Your task to perform on an android device: empty trash in google photos Image 0: 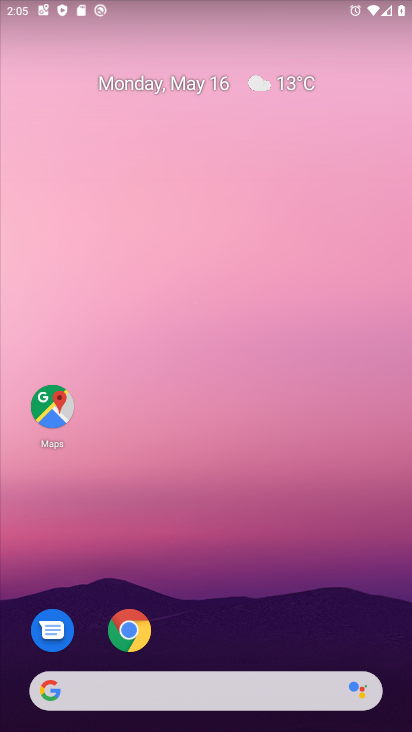
Step 0: drag from (257, 542) to (274, 149)
Your task to perform on an android device: empty trash in google photos Image 1: 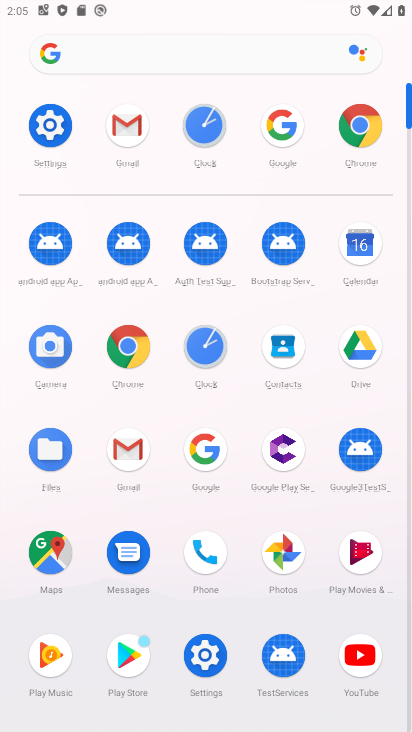
Step 1: click (289, 537)
Your task to perform on an android device: empty trash in google photos Image 2: 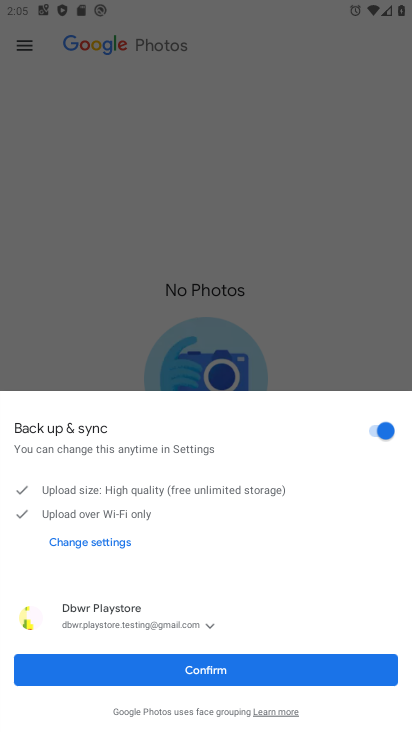
Step 2: click (219, 673)
Your task to perform on an android device: empty trash in google photos Image 3: 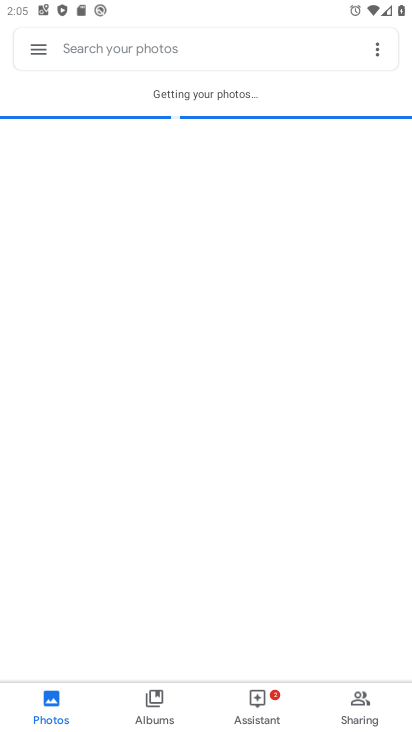
Step 3: click (370, 709)
Your task to perform on an android device: empty trash in google photos Image 4: 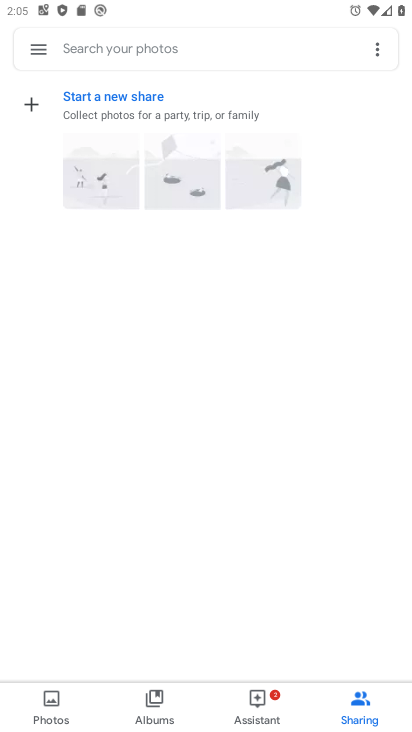
Step 4: click (24, 693)
Your task to perform on an android device: empty trash in google photos Image 5: 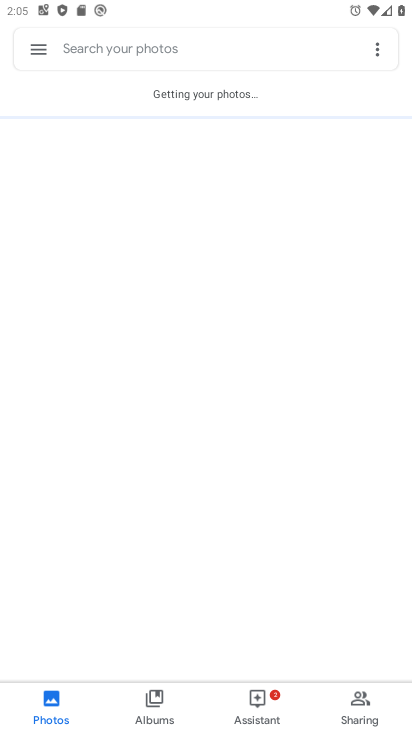
Step 5: click (382, 39)
Your task to perform on an android device: empty trash in google photos Image 6: 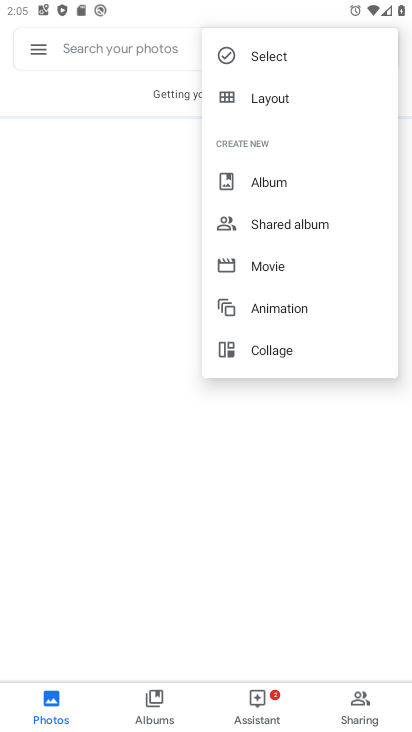
Step 6: click (279, 189)
Your task to perform on an android device: empty trash in google photos Image 7: 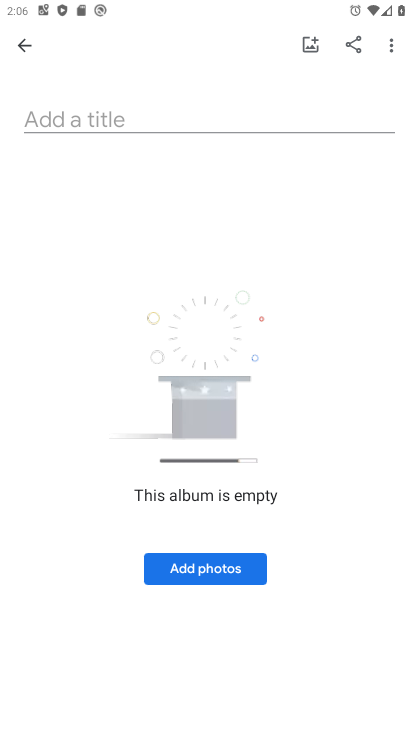
Step 7: click (392, 40)
Your task to perform on an android device: empty trash in google photos Image 8: 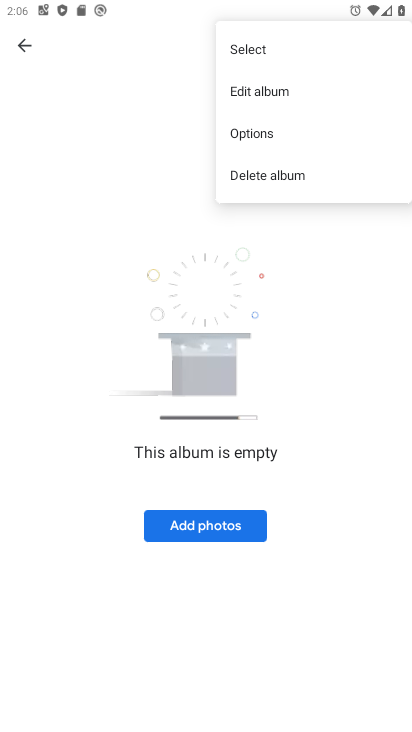
Step 8: press back button
Your task to perform on an android device: empty trash in google photos Image 9: 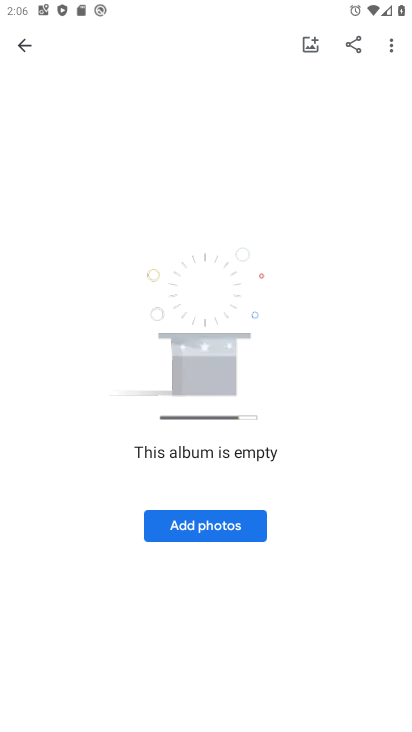
Step 9: press back button
Your task to perform on an android device: empty trash in google photos Image 10: 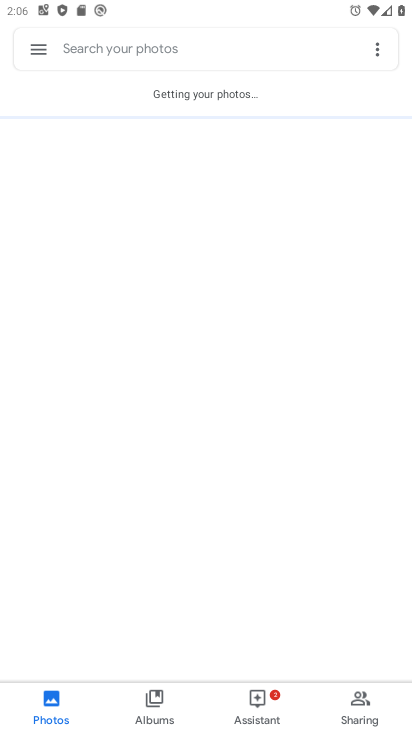
Step 10: click (368, 44)
Your task to perform on an android device: empty trash in google photos Image 11: 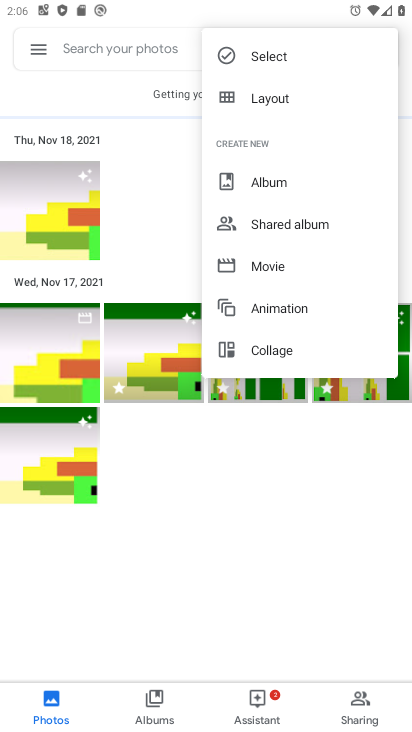
Step 11: click (74, 617)
Your task to perform on an android device: empty trash in google photos Image 12: 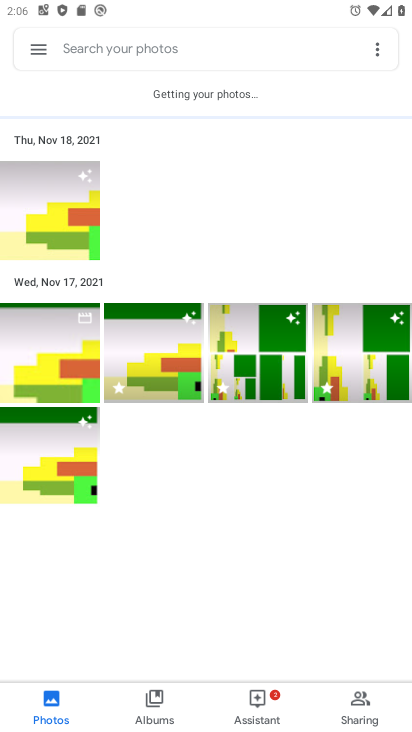
Step 12: click (74, 617)
Your task to perform on an android device: empty trash in google photos Image 13: 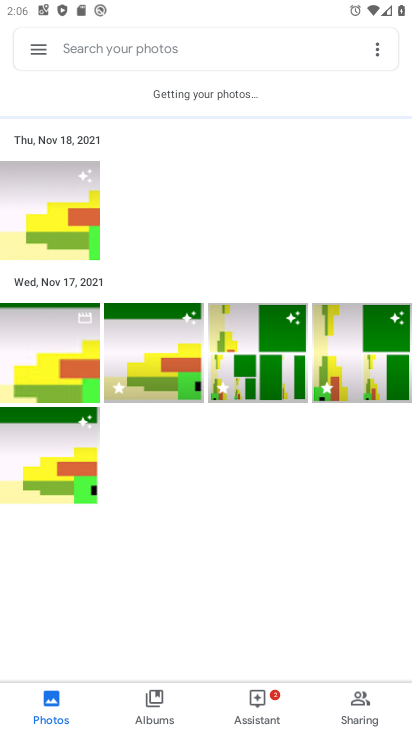
Step 13: click (74, 617)
Your task to perform on an android device: empty trash in google photos Image 14: 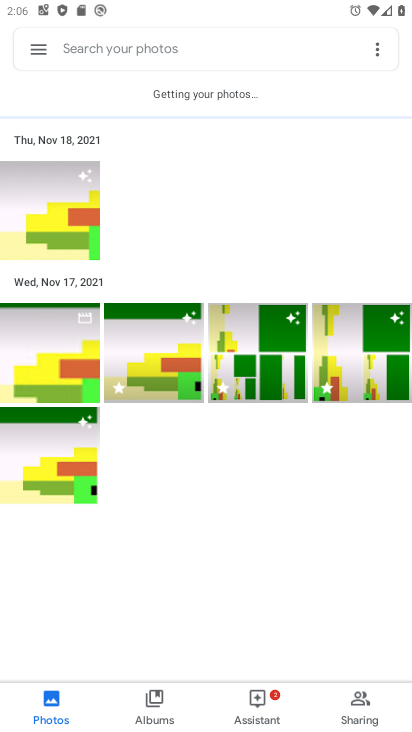
Step 14: click (168, 718)
Your task to perform on an android device: empty trash in google photos Image 15: 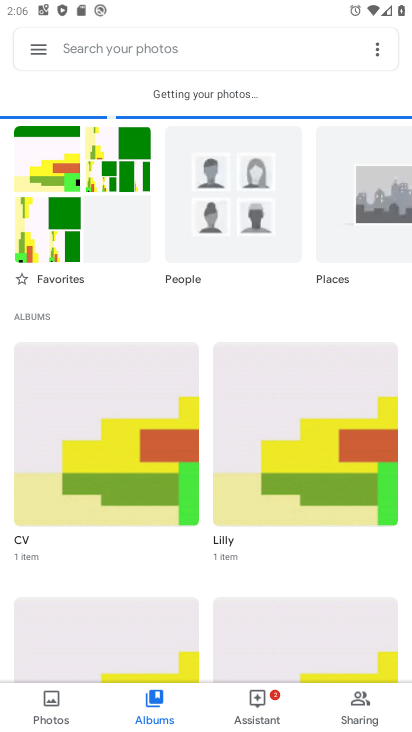
Step 15: click (365, 714)
Your task to perform on an android device: empty trash in google photos Image 16: 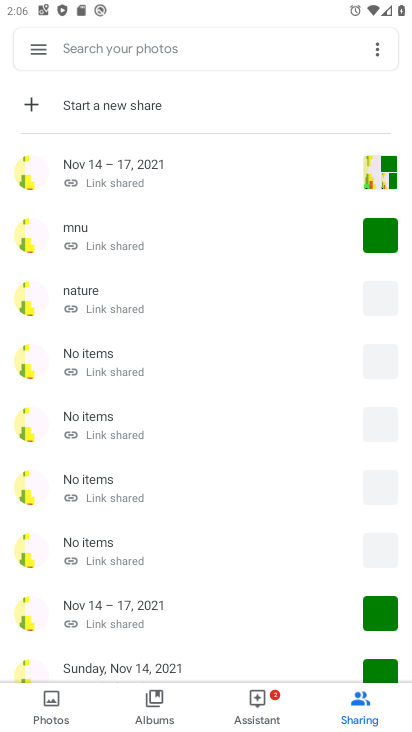
Step 16: click (256, 694)
Your task to perform on an android device: empty trash in google photos Image 17: 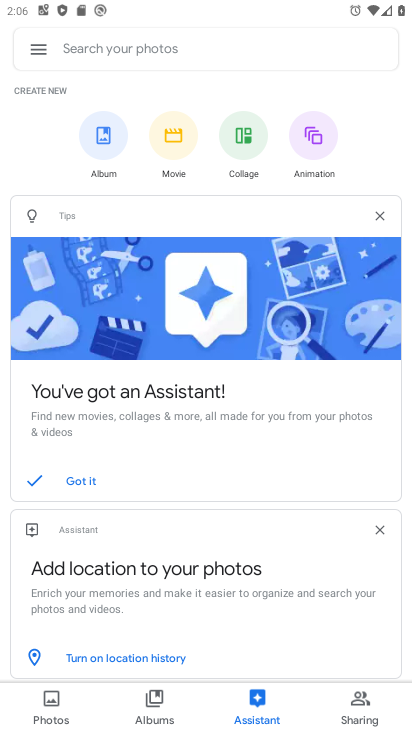
Step 17: click (44, 686)
Your task to perform on an android device: empty trash in google photos Image 18: 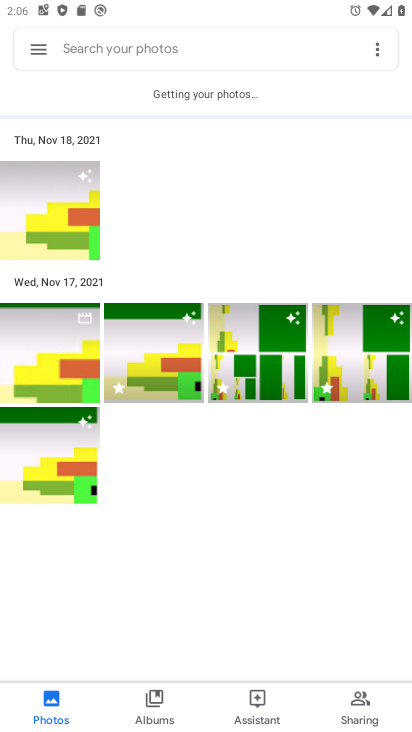
Step 18: click (139, 696)
Your task to perform on an android device: empty trash in google photos Image 19: 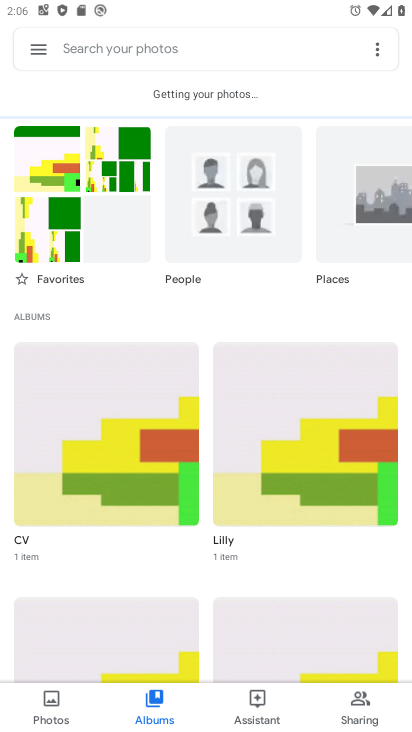
Step 19: click (41, 52)
Your task to perform on an android device: empty trash in google photos Image 20: 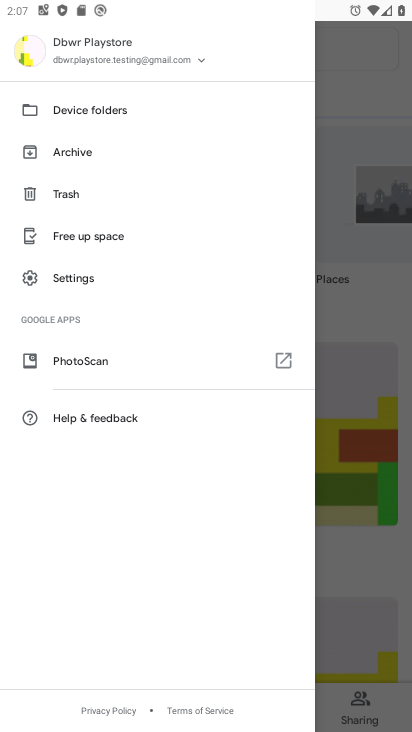
Step 20: click (74, 270)
Your task to perform on an android device: empty trash in google photos Image 21: 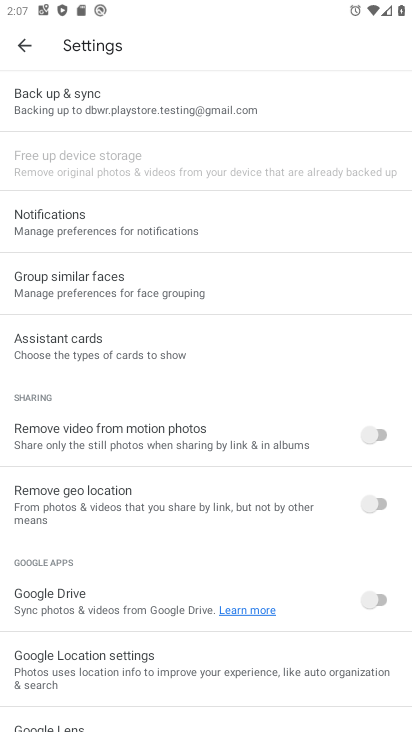
Step 21: drag from (178, 322) to (181, 264)
Your task to perform on an android device: empty trash in google photos Image 22: 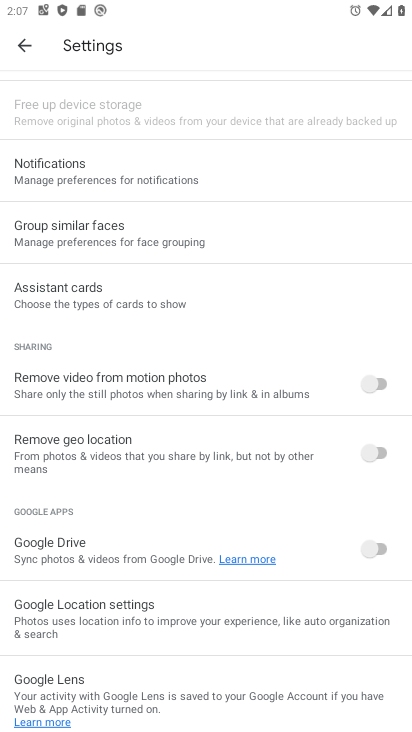
Step 22: drag from (187, 705) to (219, 350)
Your task to perform on an android device: empty trash in google photos Image 23: 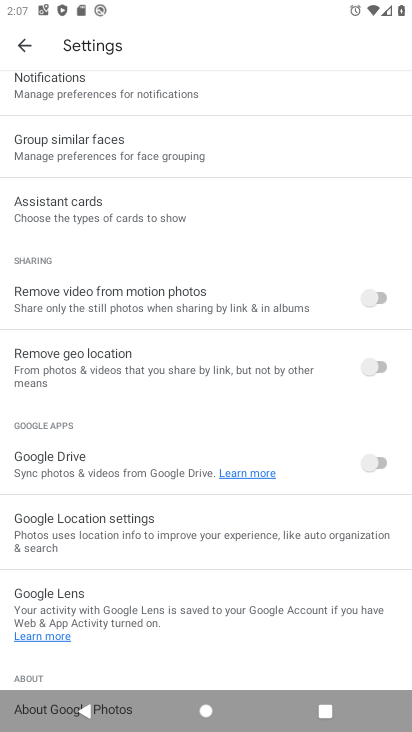
Step 23: drag from (215, 601) to (239, 273)
Your task to perform on an android device: empty trash in google photos Image 24: 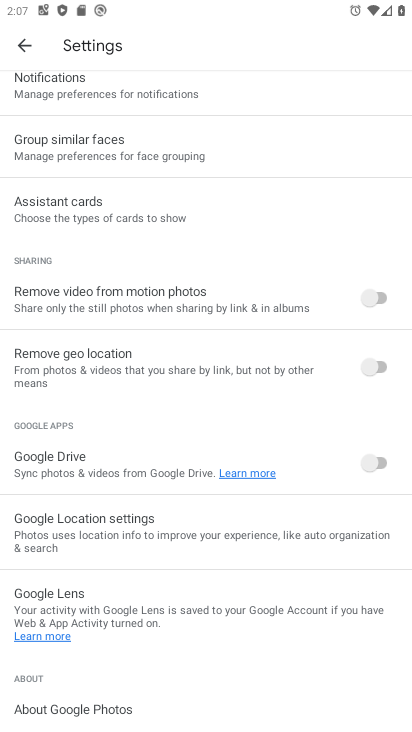
Step 24: click (200, 687)
Your task to perform on an android device: empty trash in google photos Image 25: 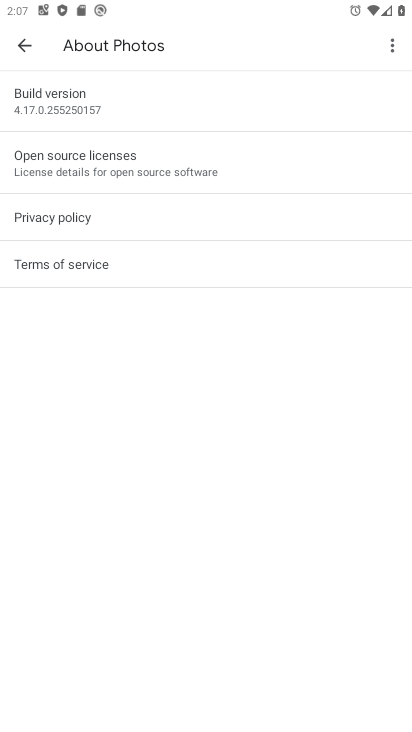
Step 25: task complete